Your task to perform on an android device: manage bookmarks in the chrome app Image 0: 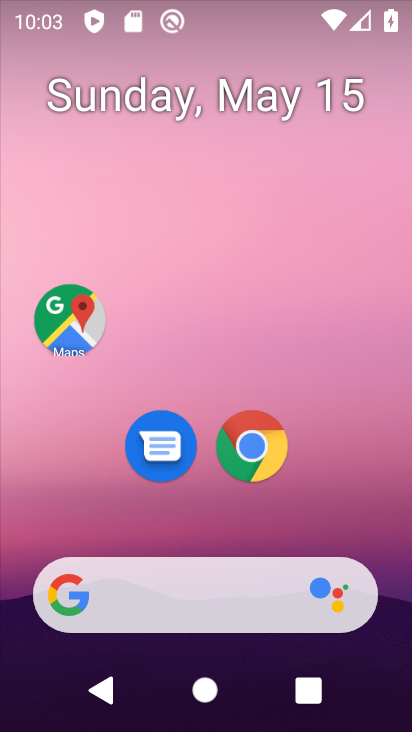
Step 0: click (230, 446)
Your task to perform on an android device: manage bookmarks in the chrome app Image 1: 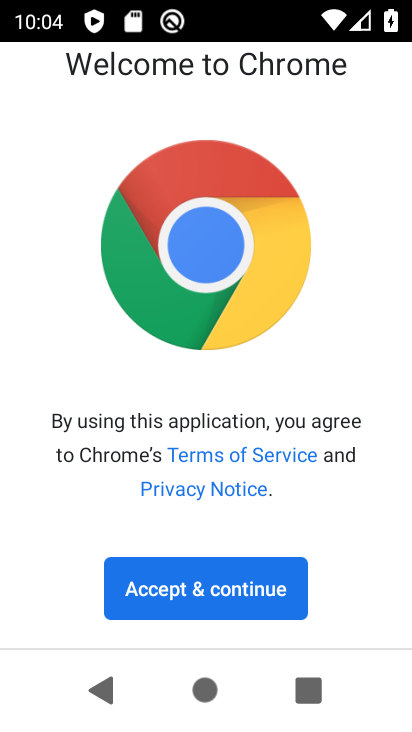
Step 1: click (240, 605)
Your task to perform on an android device: manage bookmarks in the chrome app Image 2: 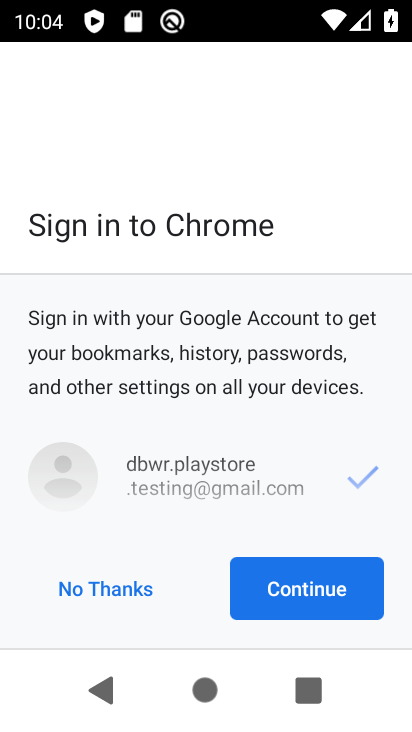
Step 2: click (285, 588)
Your task to perform on an android device: manage bookmarks in the chrome app Image 3: 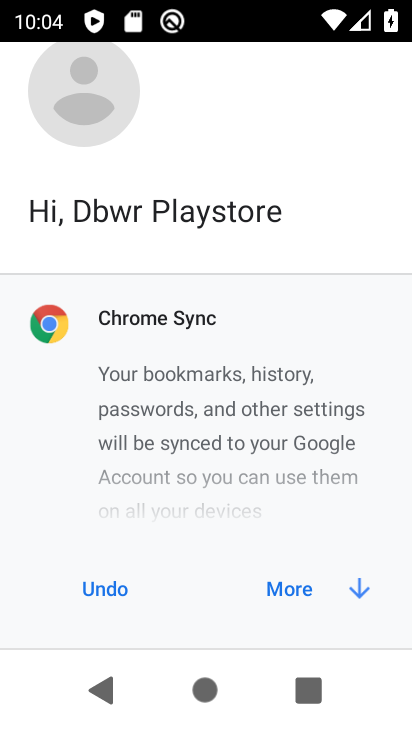
Step 3: click (289, 599)
Your task to perform on an android device: manage bookmarks in the chrome app Image 4: 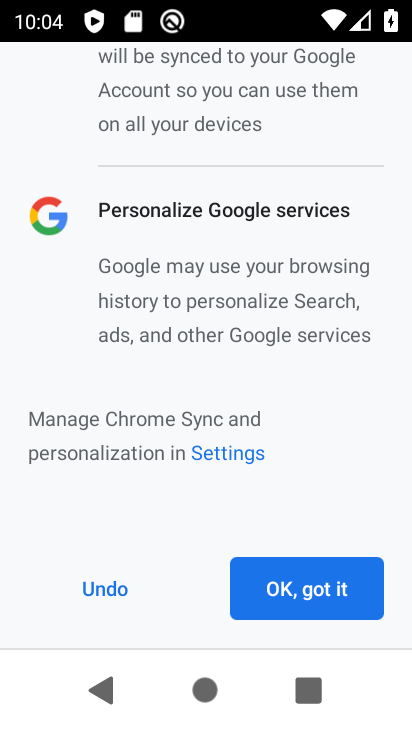
Step 4: click (301, 586)
Your task to perform on an android device: manage bookmarks in the chrome app Image 5: 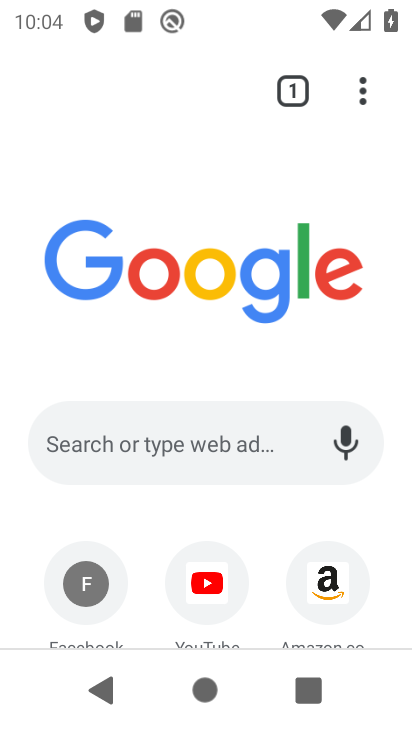
Step 5: drag from (360, 97) to (212, 332)
Your task to perform on an android device: manage bookmarks in the chrome app Image 6: 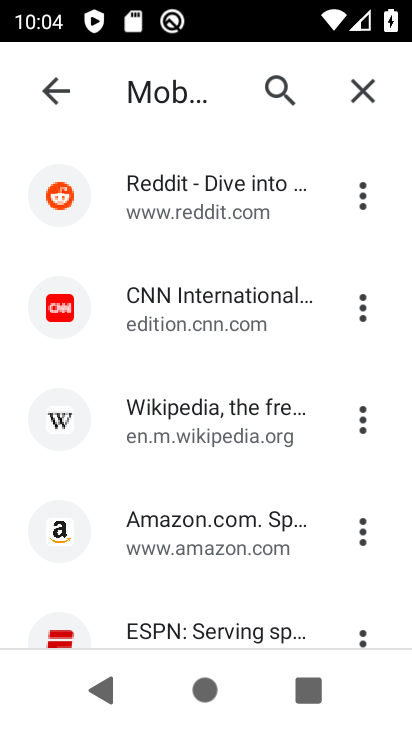
Step 6: click (365, 205)
Your task to perform on an android device: manage bookmarks in the chrome app Image 7: 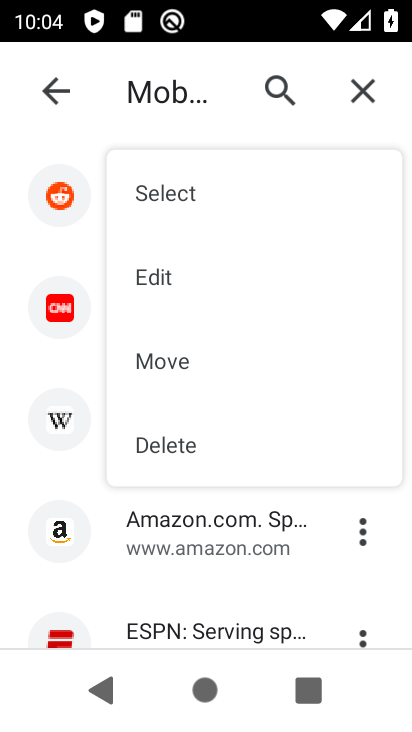
Step 7: click (230, 282)
Your task to perform on an android device: manage bookmarks in the chrome app Image 8: 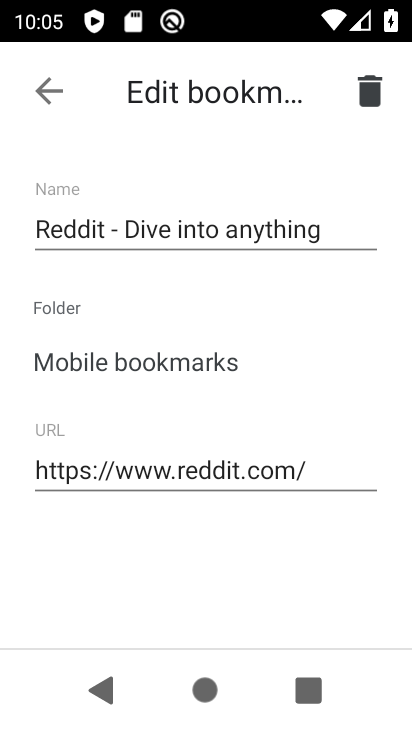
Step 8: task complete